Your task to perform on an android device: Open display settings Image 0: 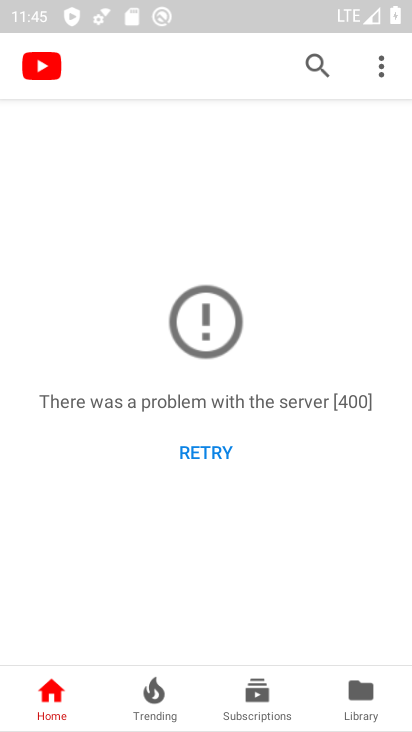
Step 0: drag from (327, 538) to (398, 313)
Your task to perform on an android device: Open display settings Image 1: 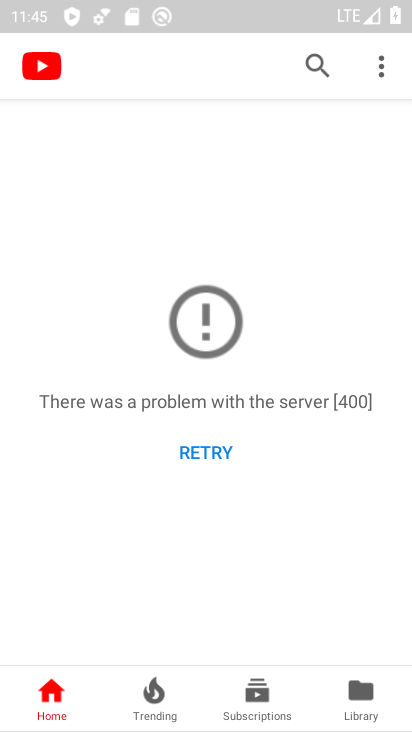
Step 1: press home button
Your task to perform on an android device: Open display settings Image 2: 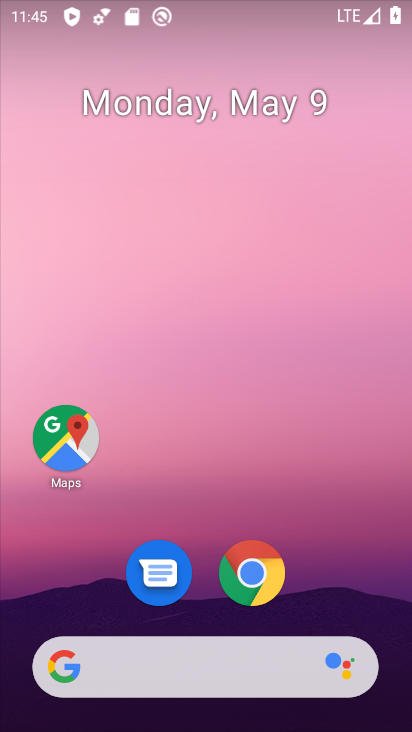
Step 2: drag from (210, 616) to (292, 184)
Your task to perform on an android device: Open display settings Image 3: 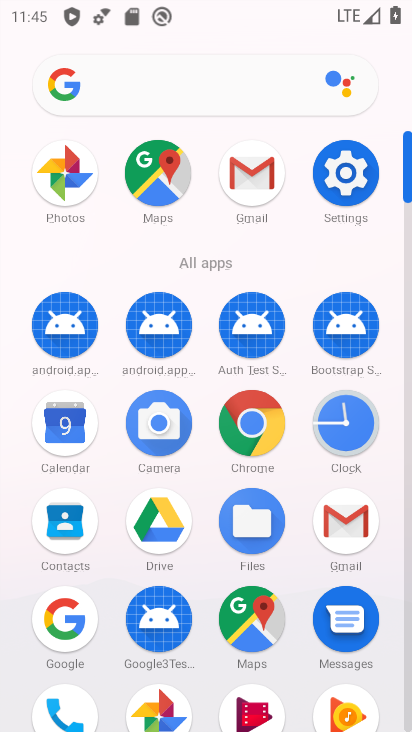
Step 3: click (335, 170)
Your task to perform on an android device: Open display settings Image 4: 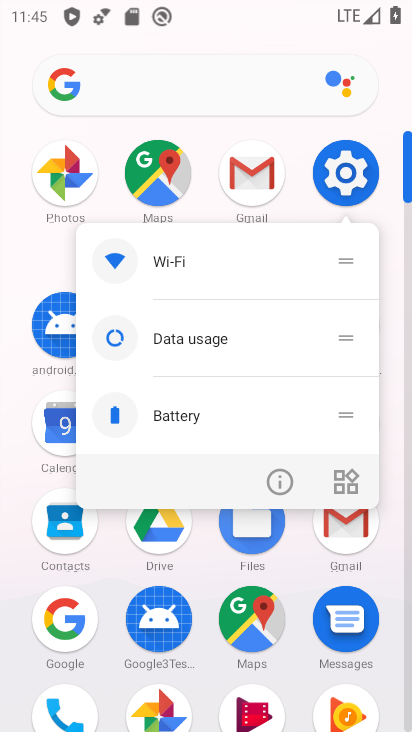
Step 4: click (280, 480)
Your task to perform on an android device: Open display settings Image 5: 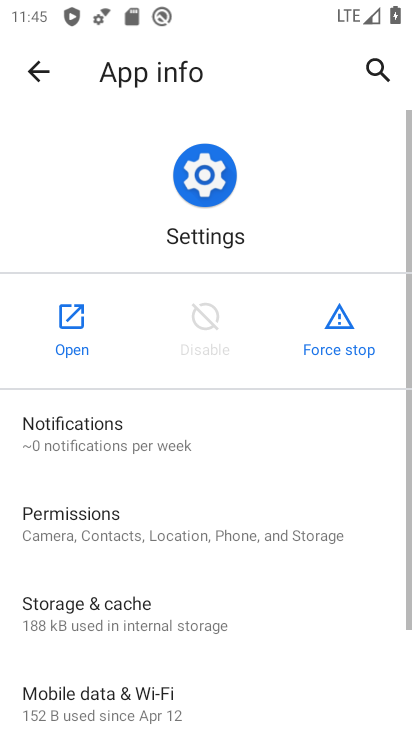
Step 5: click (84, 323)
Your task to perform on an android device: Open display settings Image 6: 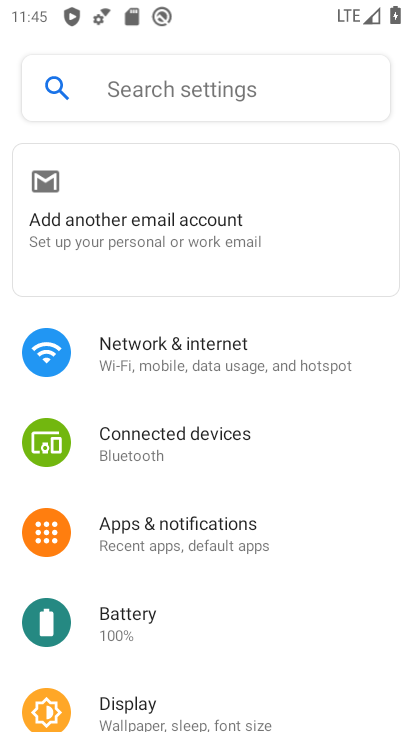
Step 6: click (165, 696)
Your task to perform on an android device: Open display settings Image 7: 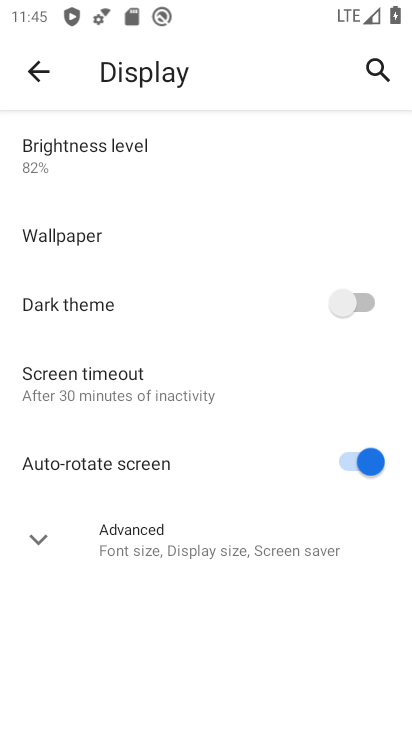
Step 7: task complete